Your task to perform on an android device: allow notifications from all sites in the chrome app Image 0: 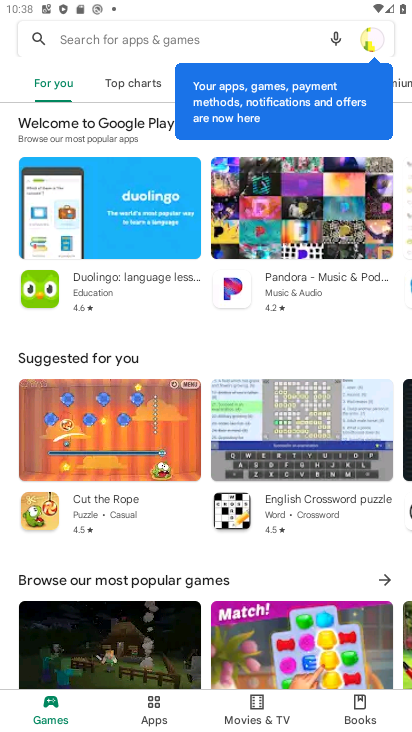
Step 0: press home button
Your task to perform on an android device: allow notifications from all sites in the chrome app Image 1: 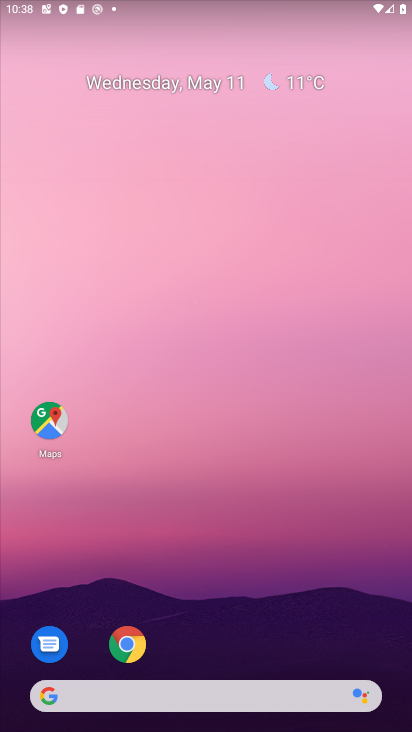
Step 1: click (129, 639)
Your task to perform on an android device: allow notifications from all sites in the chrome app Image 2: 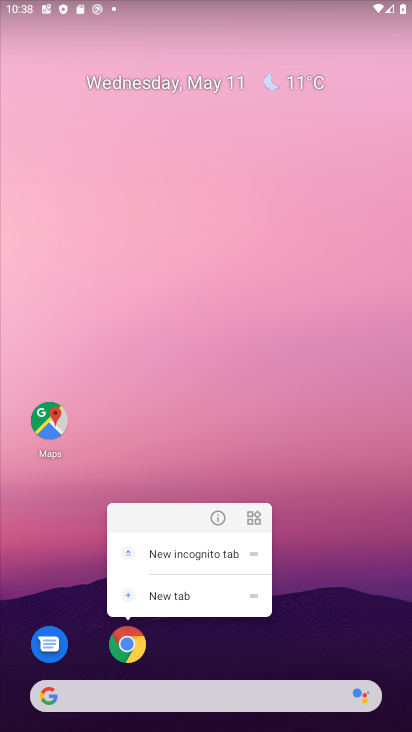
Step 2: click (125, 643)
Your task to perform on an android device: allow notifications from all sites in the chrome app Image 3: 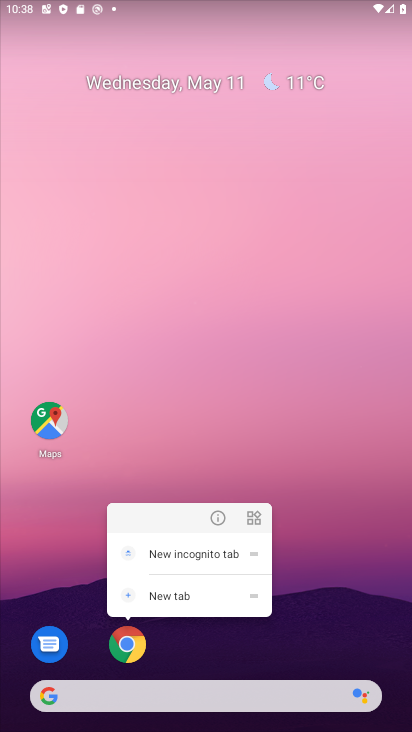
Step 3: click (124, 648)
Your task to perform on an android device: allow notifications from all sites in the chrome app Image 4: 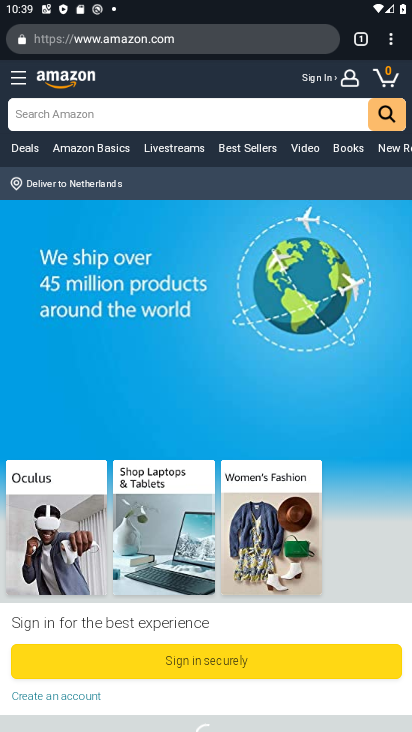
Step 4: click (390, 39)
Your task to perform on an android device: allow notifications from all sites in the chrome app Image 5: 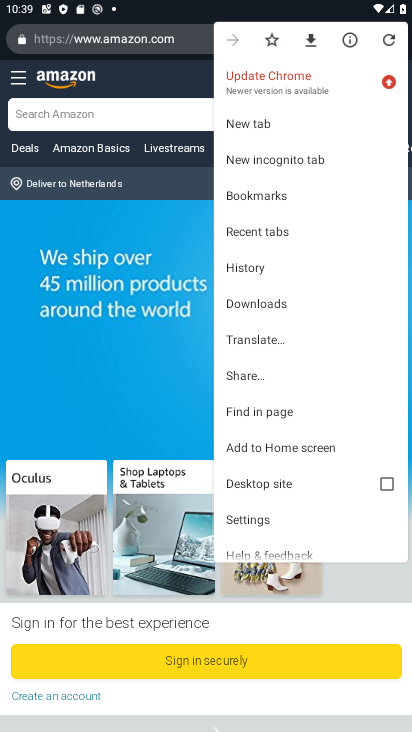
Step 5: click (275, 518)
Your task to perform on an android device: allow notifications from all sites in the chrome app Image 6: 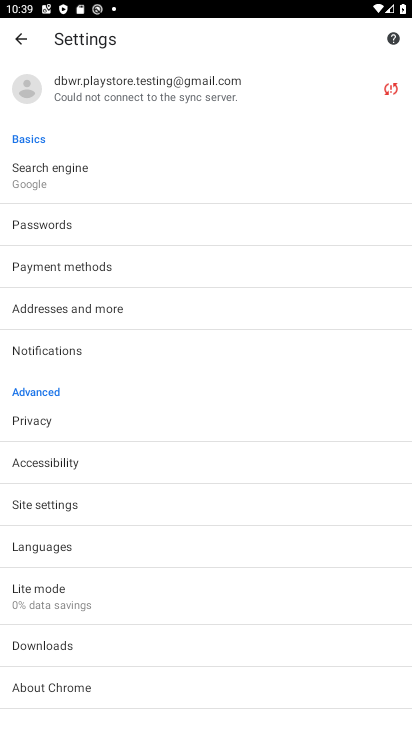
Step 6: click (80, 499)
Your task to perform on an android device: allow notifications from all sites in the chrome app Image 7: 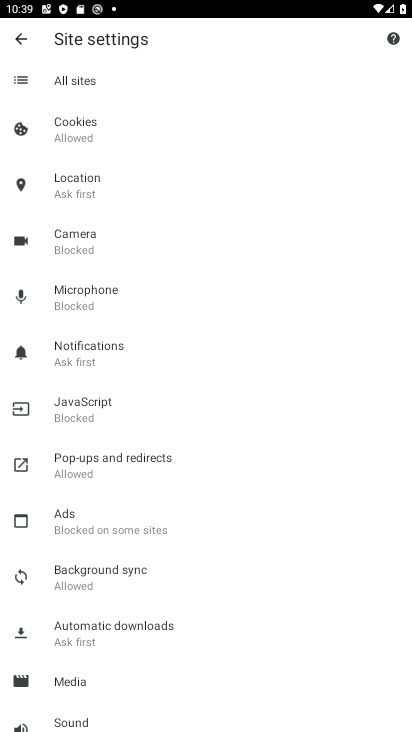
Step 7: click (82, 75)
Your task to perform on an android device: allow notifications from all sites in the chrome app Image 8: 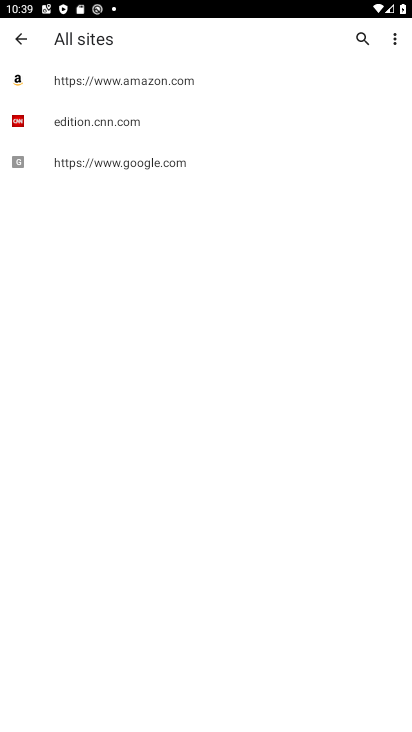
Step 8: click (73, 158)
Your task to perform on an android device: allow notifications from all sites in the chrome app Image 9: 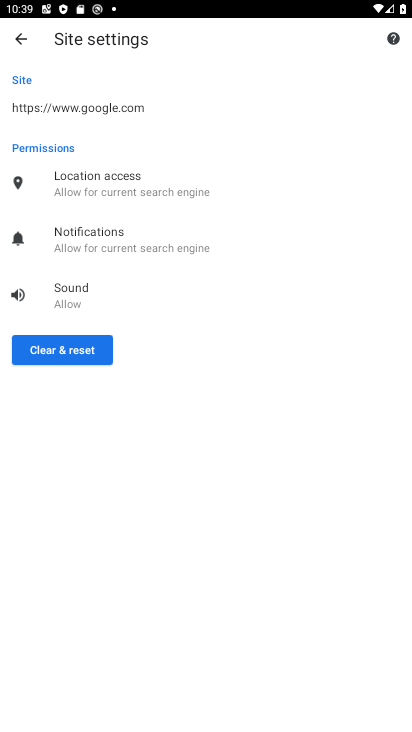
Step 9: click (21, 39)
Your task to perform on an android device: allow notifications from all sites in the chrome app Image 10: 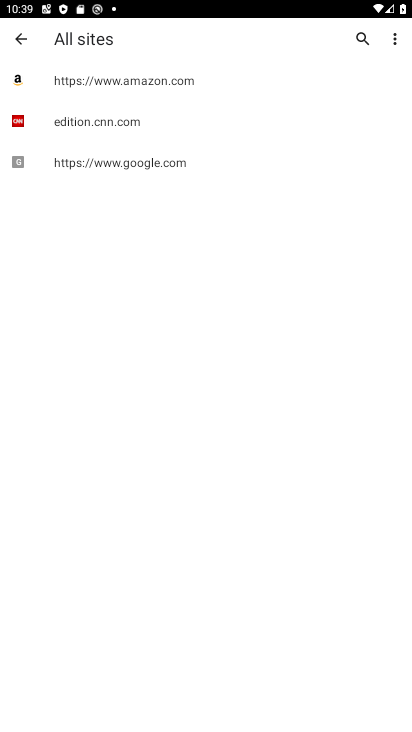
Step 10: click (74, 122)
Your task to perform on an android device: allow notifications from all sites in the chrome app Image 11: 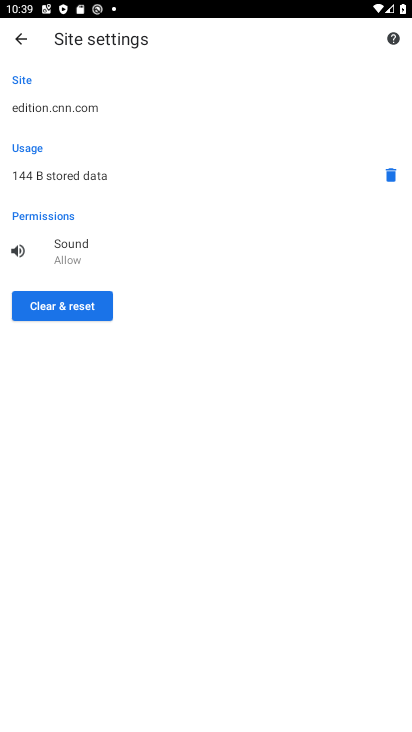
Step 11: click (17, 37)
Your task to perform on an android device: allow notifications from all sites in the chrome app Image 12: 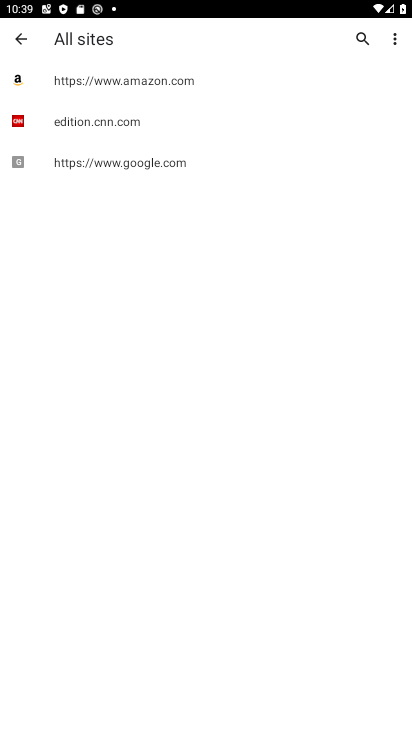
Step 12: click (82, 85)
Your task to perform on an android device: allow notifications from all sites in the chrome app Image 13: 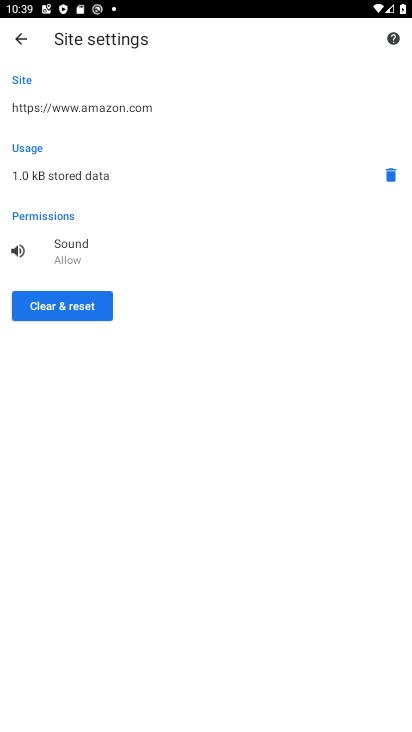
Step 13: task complete